Your task to perform on an android device: Add "razer nari" to the cart on walmart.com, then select checkout. Image 0: 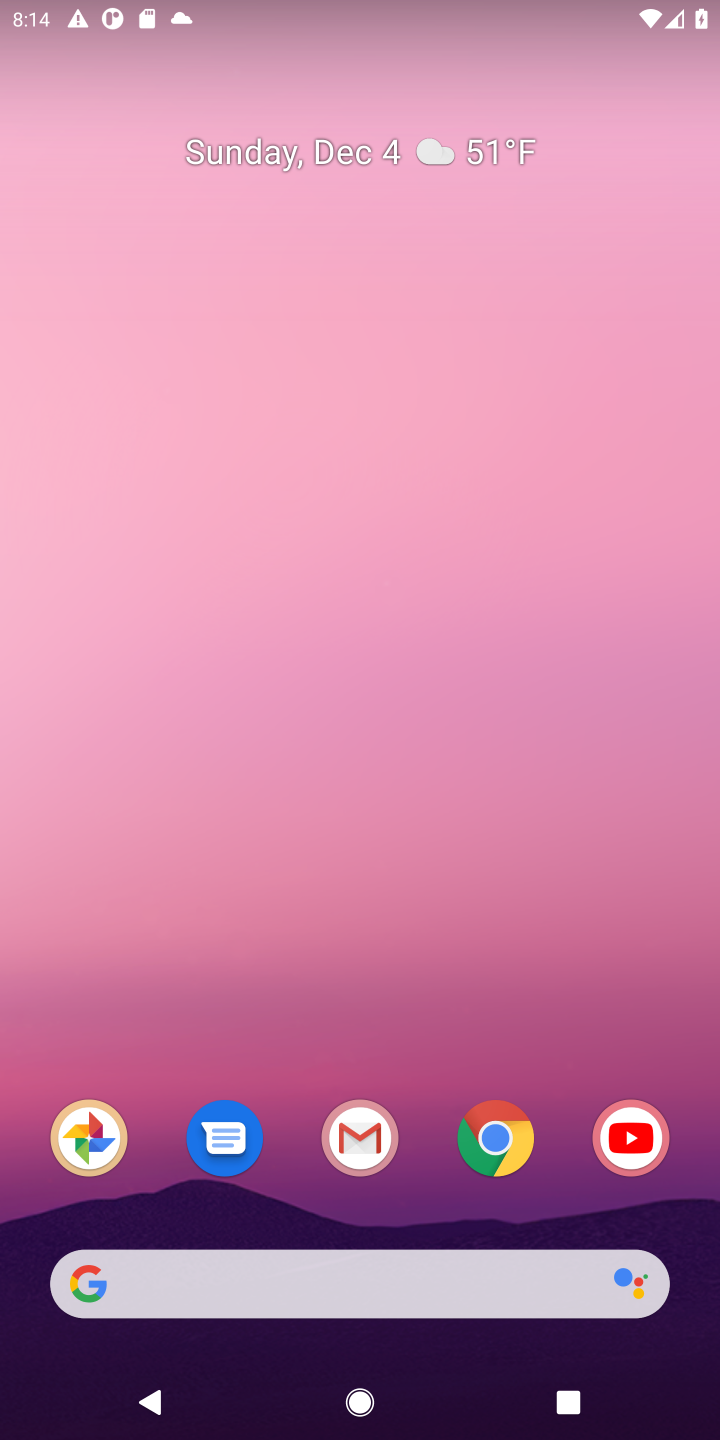
Step 0: click (493, 1133)
Your task to perform on an android device: Add "razer nari" to the cart on walmart.com, then select checkout. Image 1: 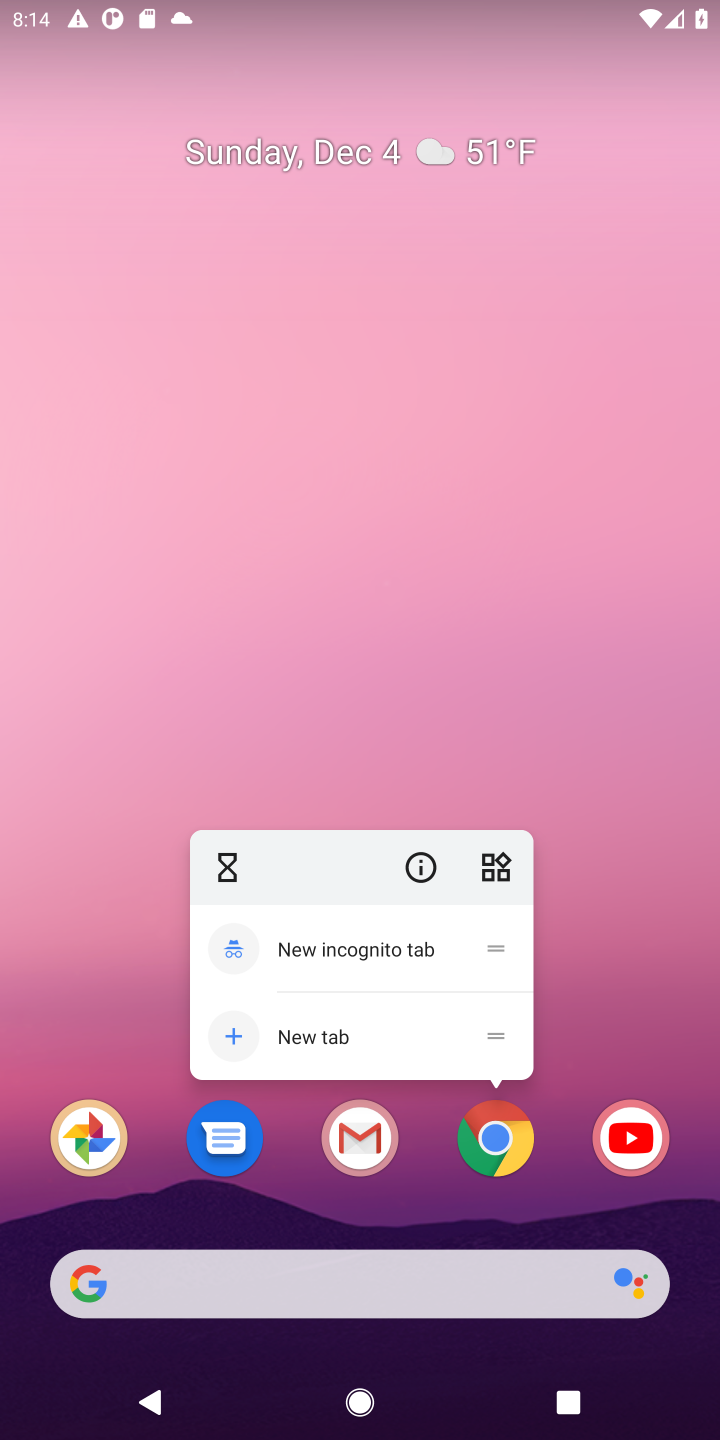
Step 1: click (493, 1133)
Your task to perform on an android device: Add "razer nari" to the cart on walmart.com, then select checkout. Image 2: 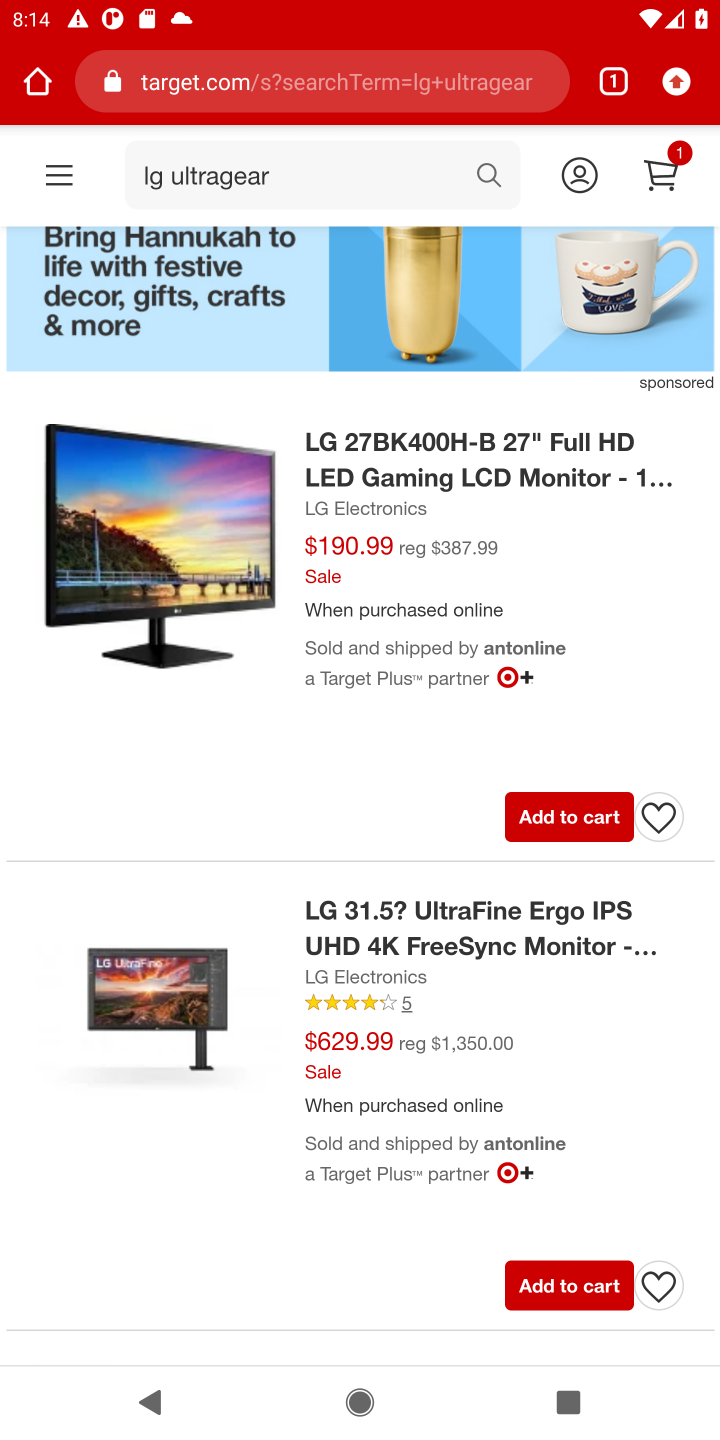
Step 2: click (327, 76)
Your task to perform on an android device: Add "razer nari" to the cart on walmart.com, then select checkout. Image 3: 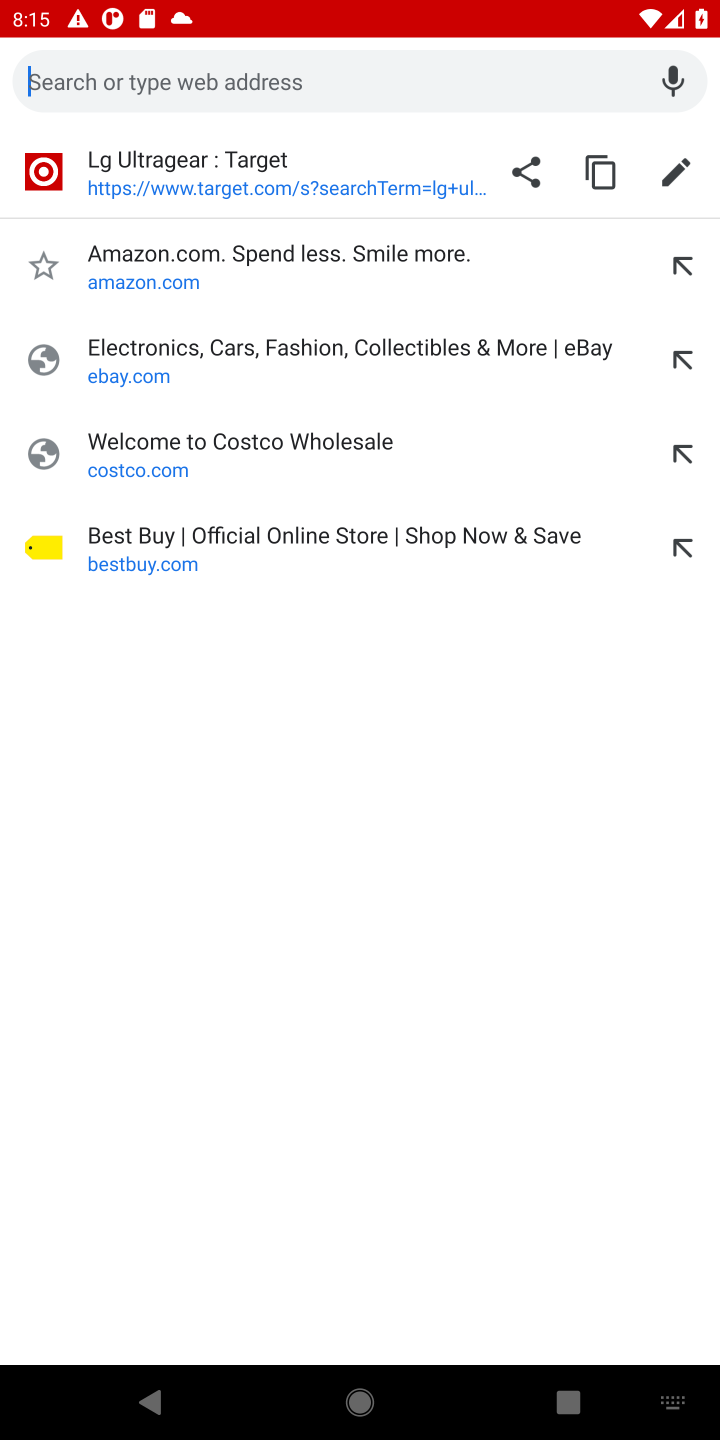
Step 3: type "walmart.com"
Your task to perform on an android device: Add "razer nari" to the cart on walmart.com, then select checkout. Image 4: 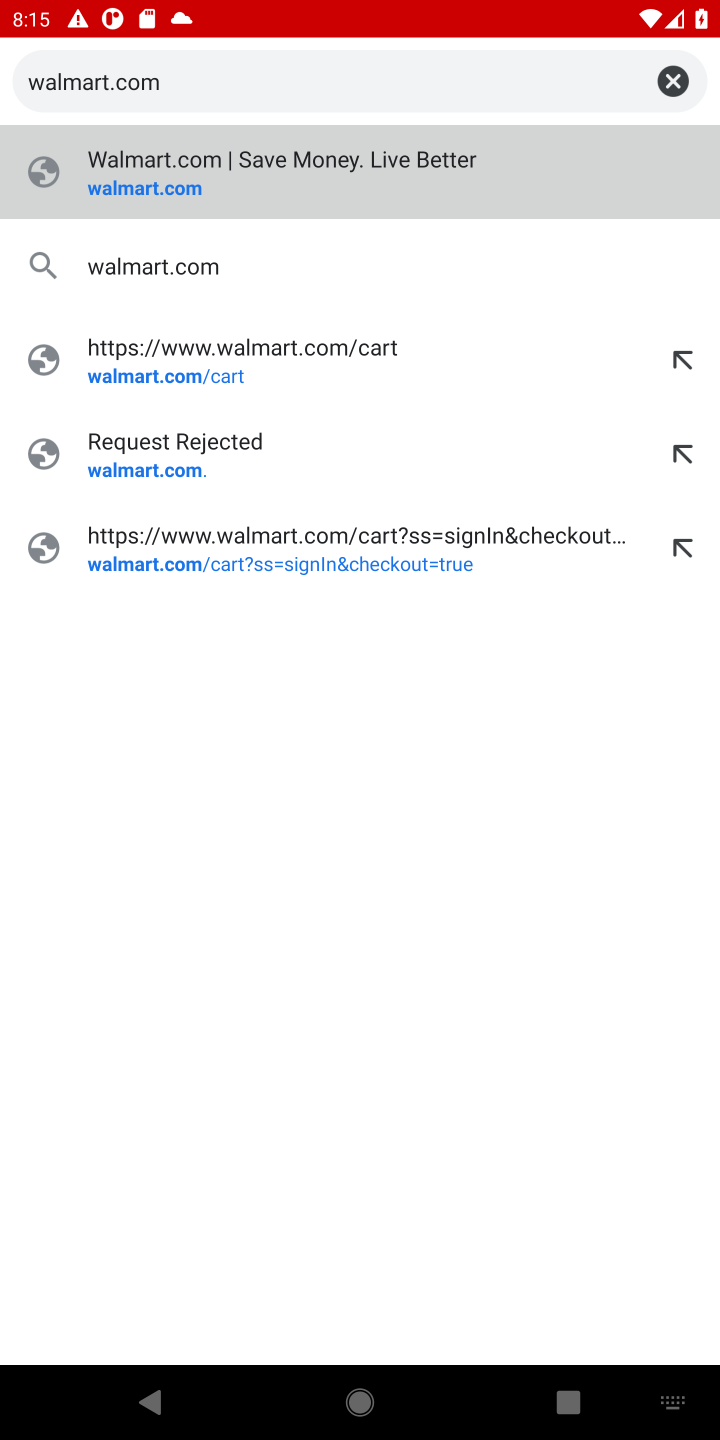
Step 4: press enter
Your task to perform on an android device: Add "razer nari" to the cart on walmart.com, then select checkout. Image 5: 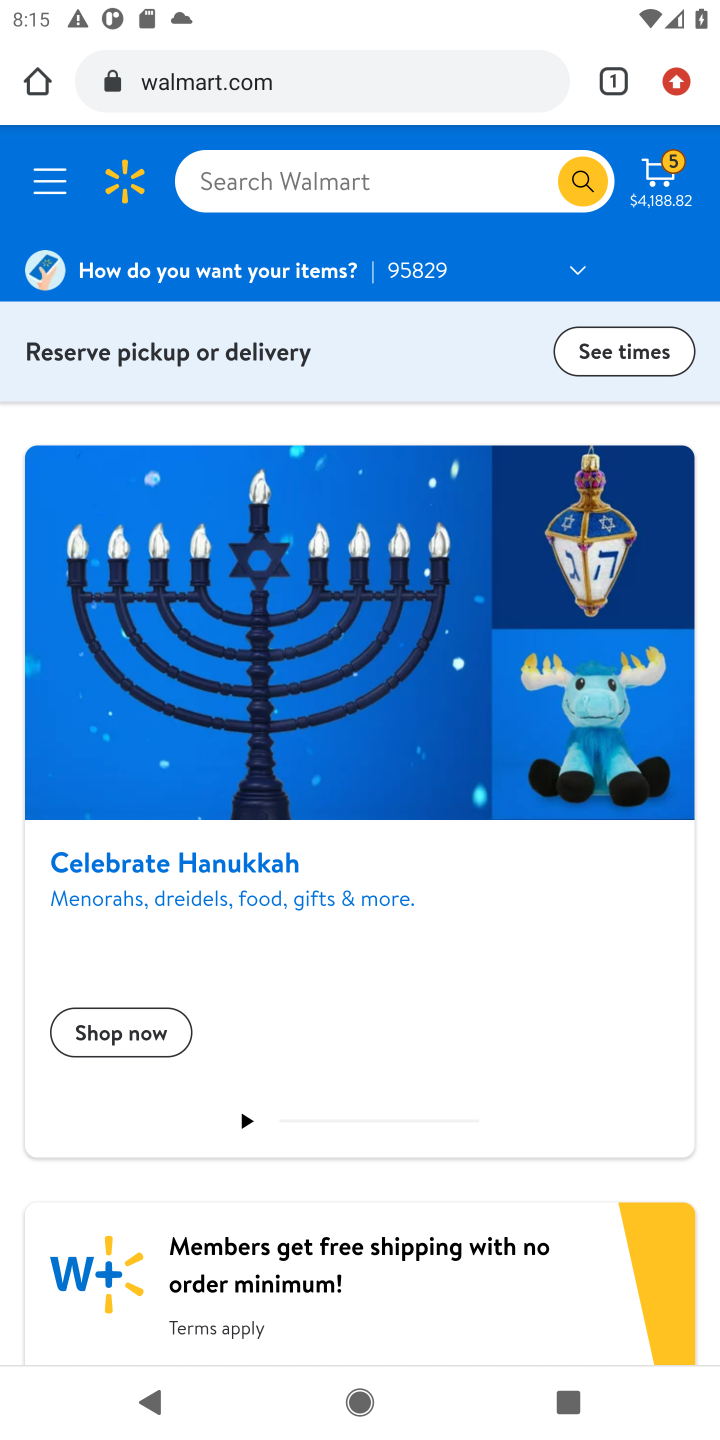
Step 5: click (497, 183)
Your task to perform on an android device: Add "razer nari" to the cart on walmart.com, then select checkout. Image 6: 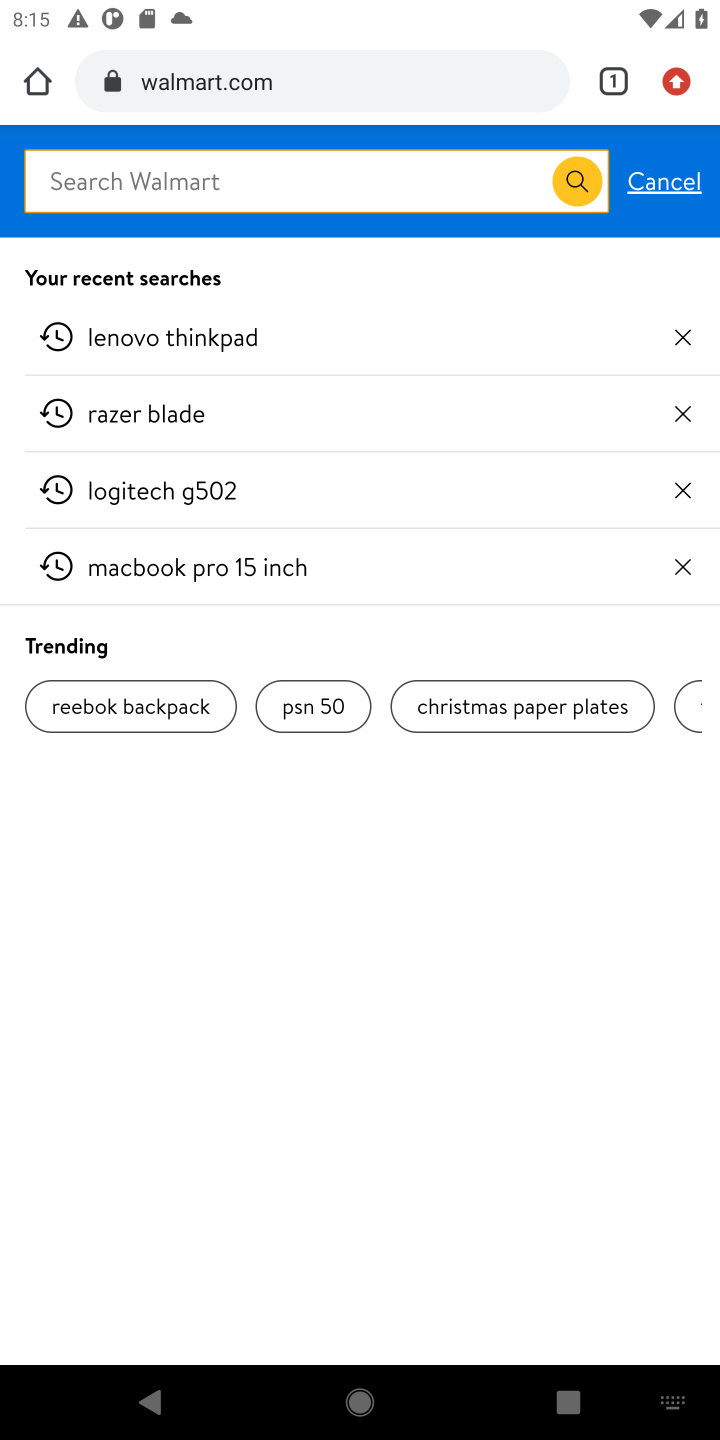
Step 6: type "razer nari"
Your task to perform on an android device: Add "razer nari" to the cart on walmart.com, then select checkout. Image 7: 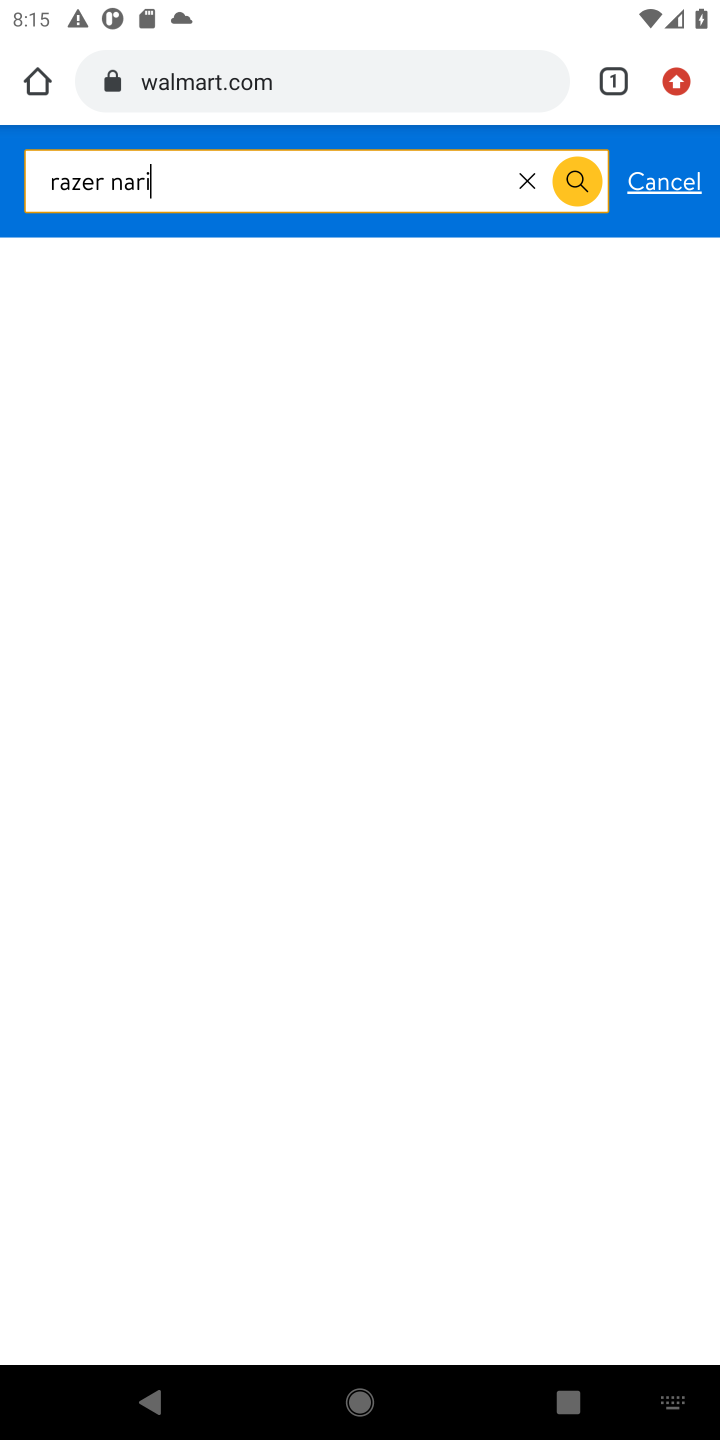
Step 7: press enter
Your task to perform on an android device: Add "razer nari" to the cart on walmart.com, then select checkout. Image 8: 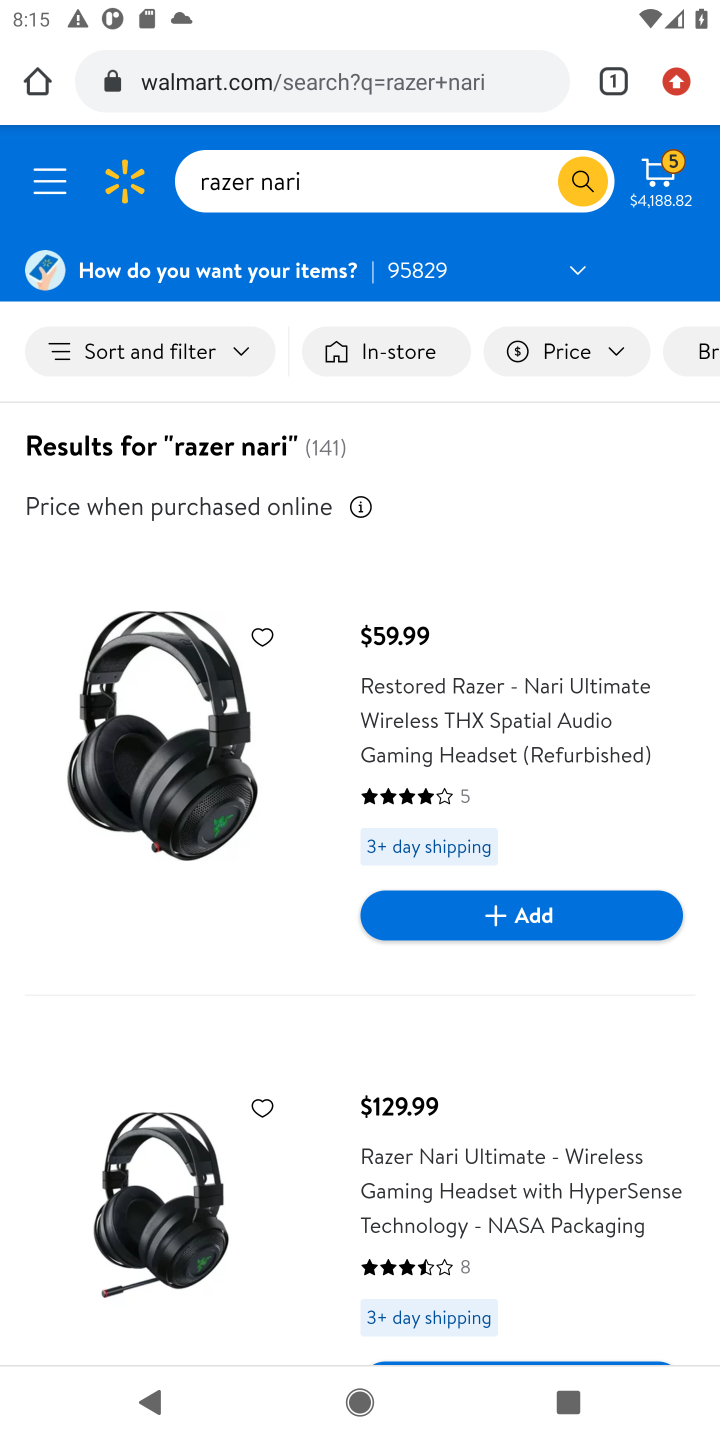
Step 8: click (83, 726)
Your task to perform on an android device: Add "razer nari" to the cart on walmart.com, then select checkout. Image 9: 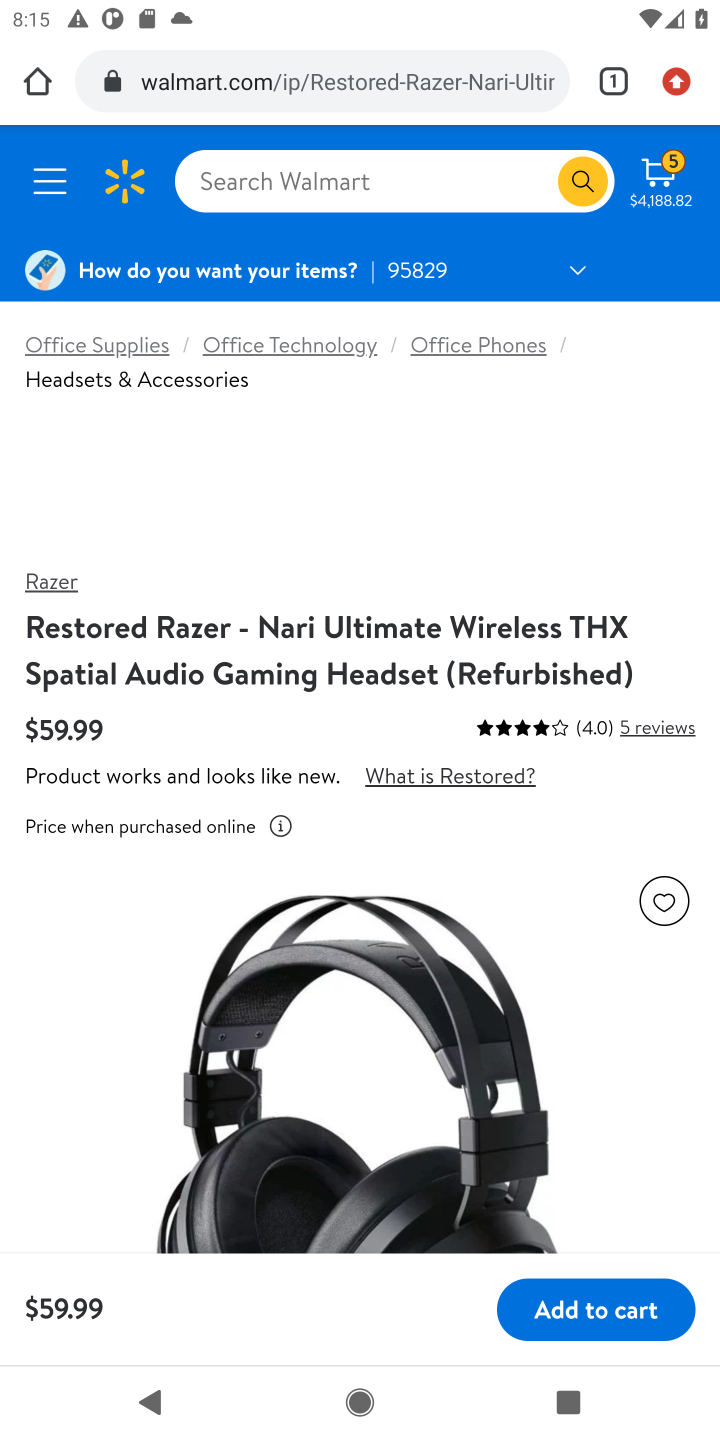
Step 9: click (606, 1316)
Your task to perform on an android device: Add "razer nari" to the cart on walmart.com, then select checkout. Image 10: 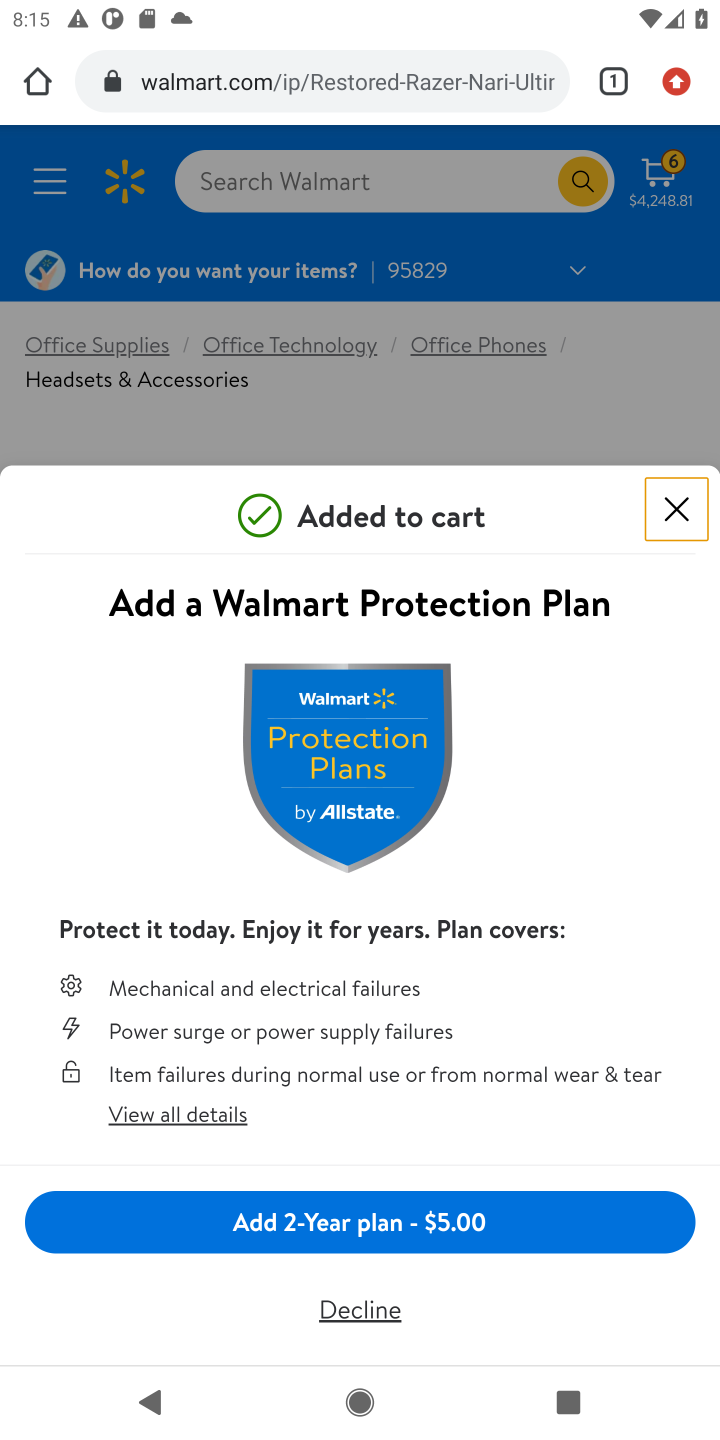
Step 10: click (676, 521)
Your task to perform on an android device: Add "razer nari" to the cart on walmart.com, then select checkout. Image 11: 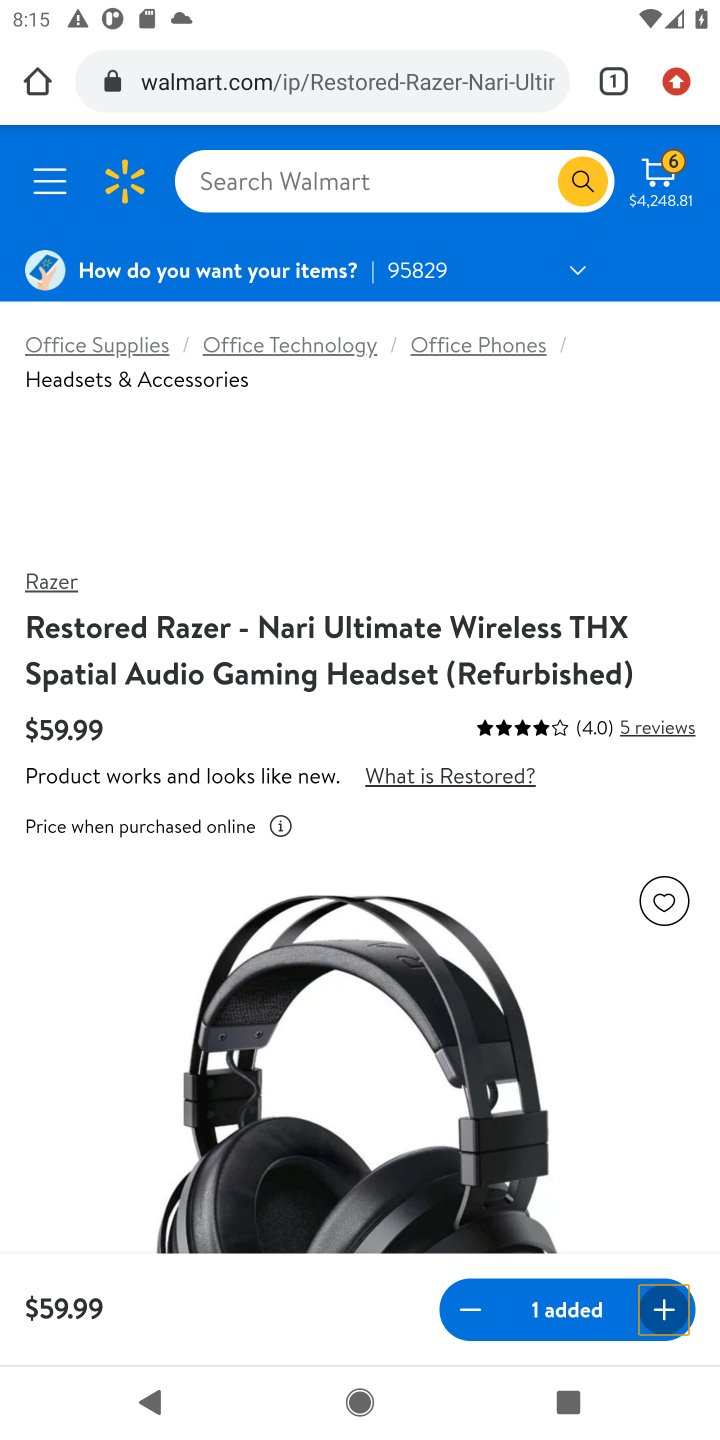
Step 11: click (659, 181)
Your task to perform on an android device: Add "razer nari" to the cart on walmart.com, then select checkout. Image 12: 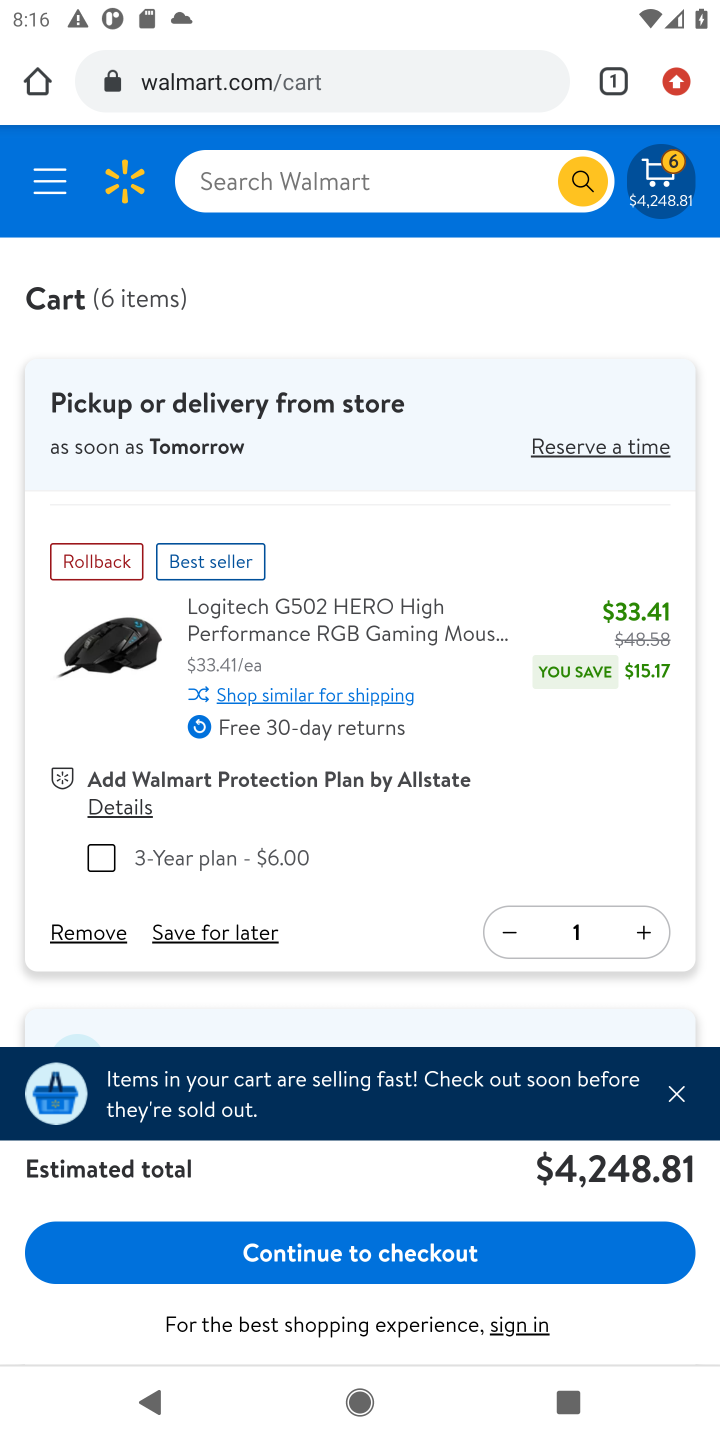
Step 12: click (366, 1250)
Your task to perform on an android device: Add "razer nari" to the cart on walmart.com, then select checkout. Image 13: 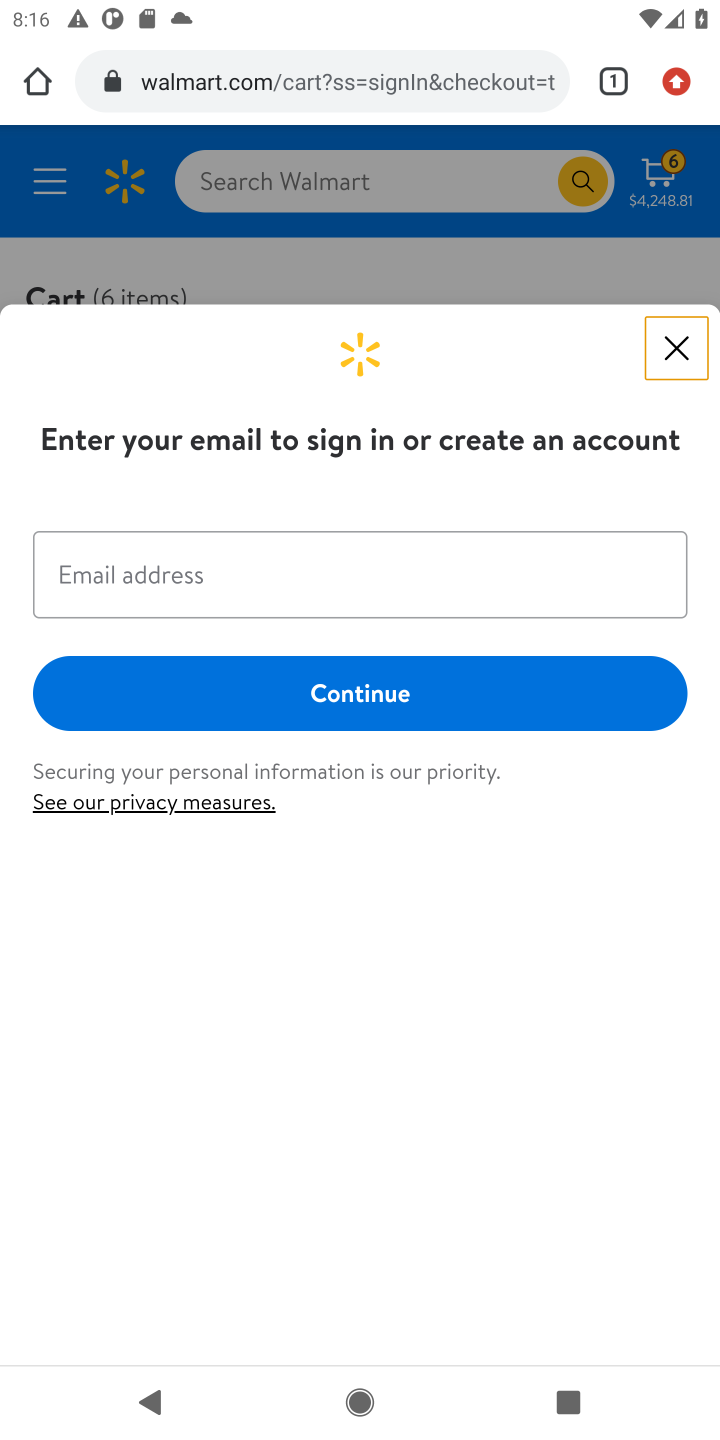
Step 13: task complete